Your task to perform on an android device: turn off notifications in google photos Image 0: 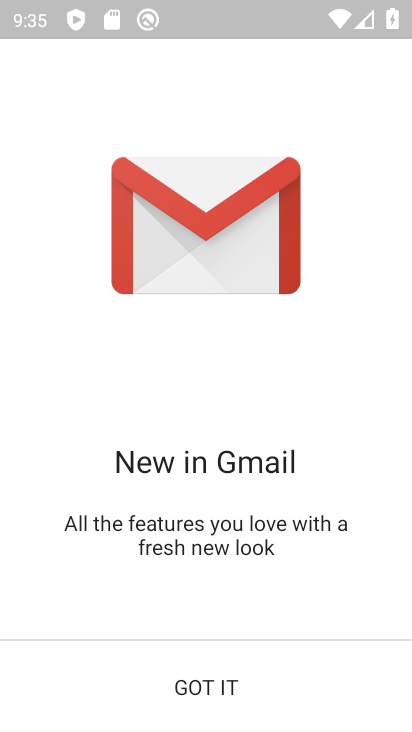
Step 0: press home button
Your task to perform on an android device: turn off notifications in google photos Image 1: 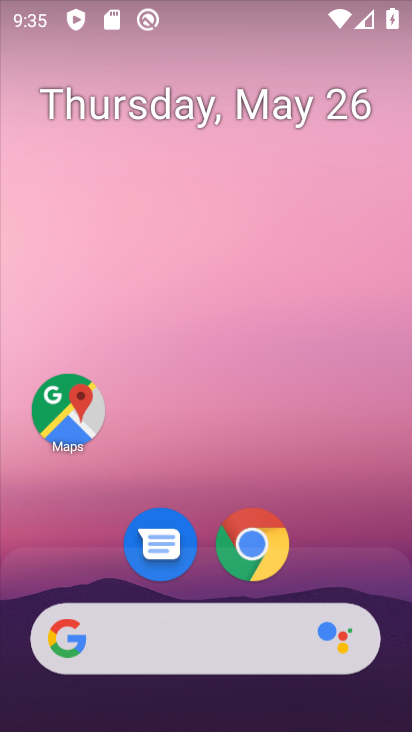
Step 1: drag from (209, 592) to (211, 74)
Your task to perform on an android device: turn off notifications in google photos Image 2: 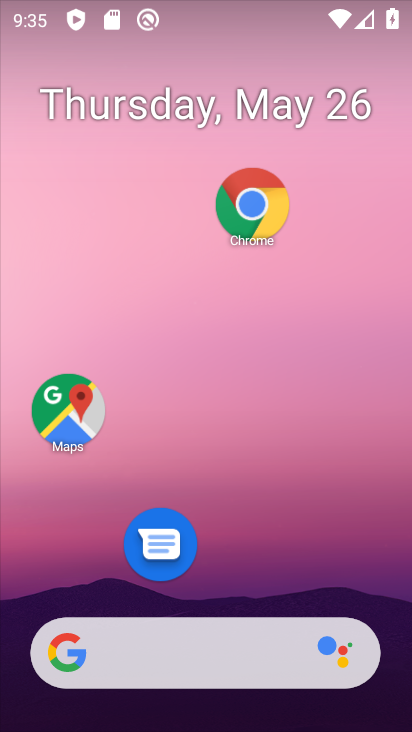
Step 2: drag from (337, 565) to (330, 0)
Your task to perform on an android device: turn off notifications in google photos Image 3: 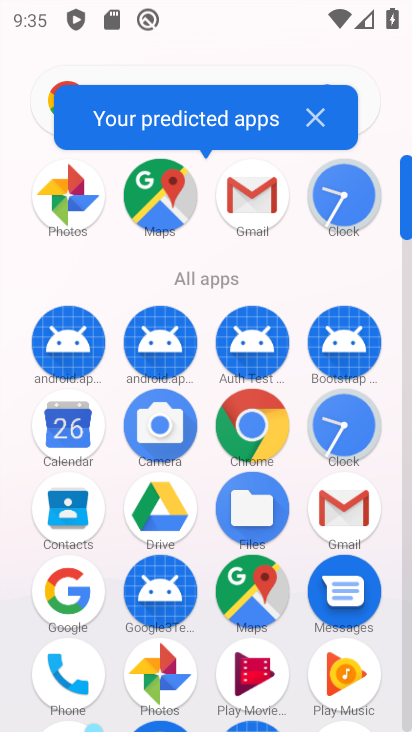
Step 3: click (156, 665)
Your task to perform on an android device: turn off notifications in google photos Image 4: 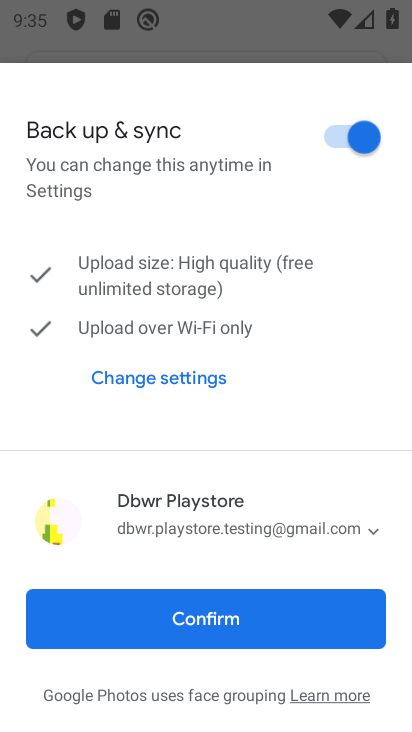
Step 4: click (198, 617)
Your task to perform on an android device: turn off notifications in google photos Image 5: 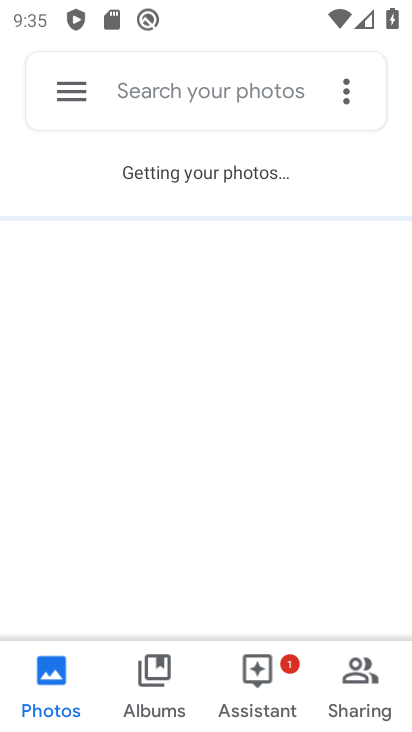
Step 5: click (74, 92)
Your task to perform on an android device: turn off notifications in google photos Image 6: 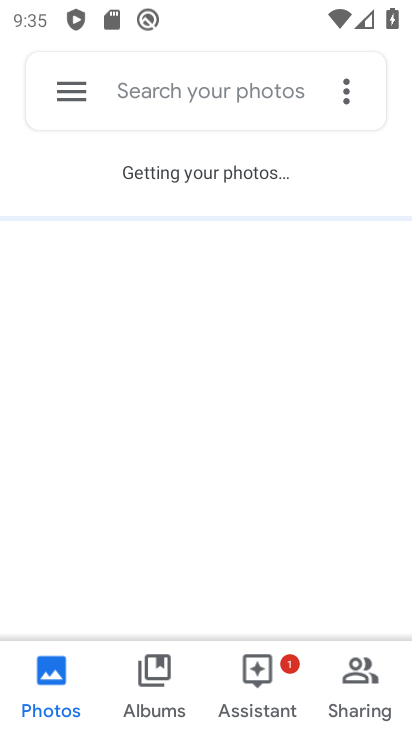
Step 6: click (74, 92)
Your task to perform on an android device: turn off notifications in google photos Image 7: 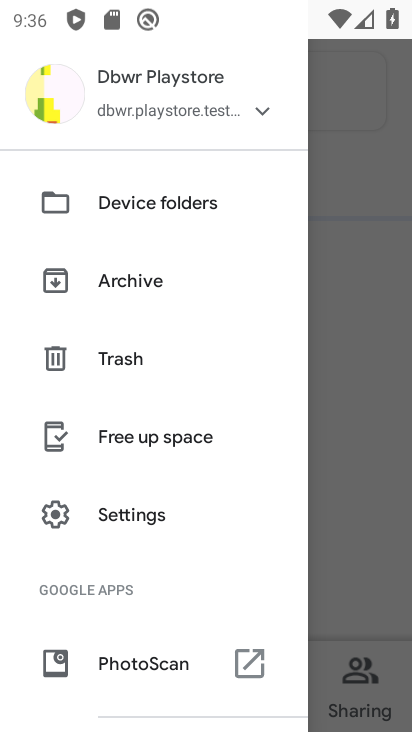
Step 7: click (82, 508)
Your task to perform on an android device: turn off notifications in google photos Image 8: 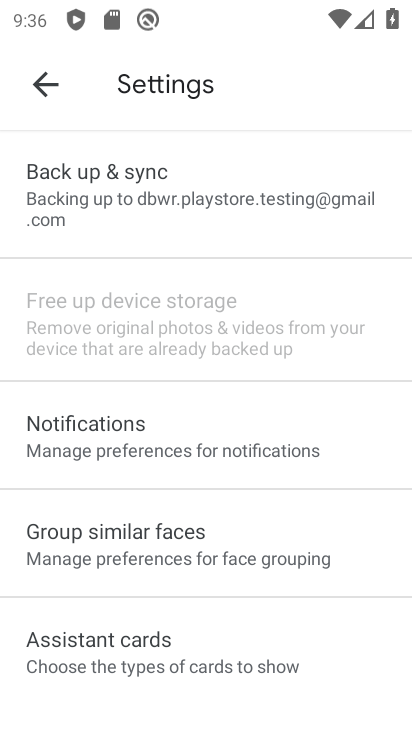
Step 8: click (161, 437)
Your task to perform on an android device: turn off notifications in google photos Image 9: 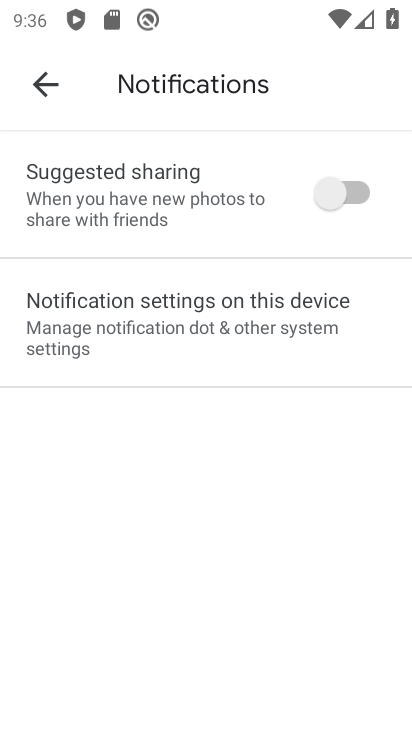
Step 9: click (176, 351)
Your task to perform on an android device: turn off notifications in google photos Image 10: 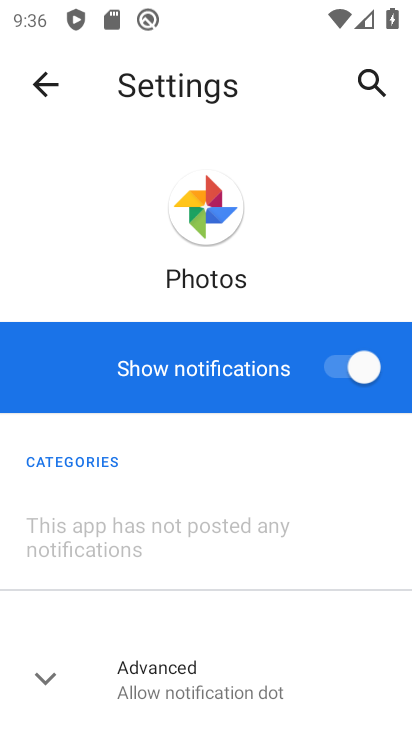
Step 10: click (338, 368)
Your task to perform on an android device: turn off notifications in google photos Image 11: 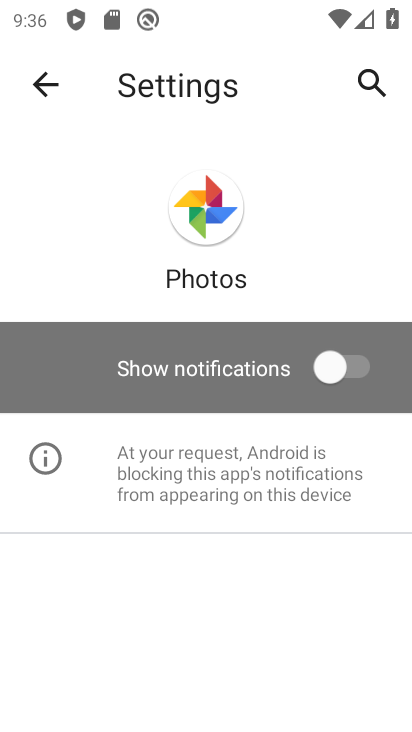
Step 11: task complete